Your task to perform on an android device: remove spam from my inbox in the gmail app Image 0: 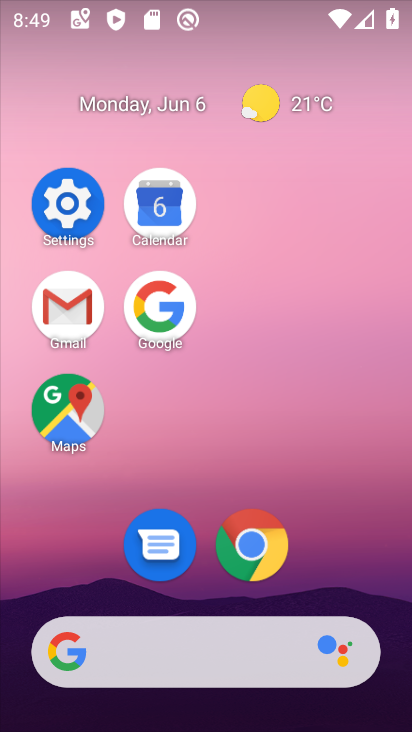
Step 0: click (58, 304)
Your task to perform on an android device: remove spam from my inbox in the gmail app Image 1: 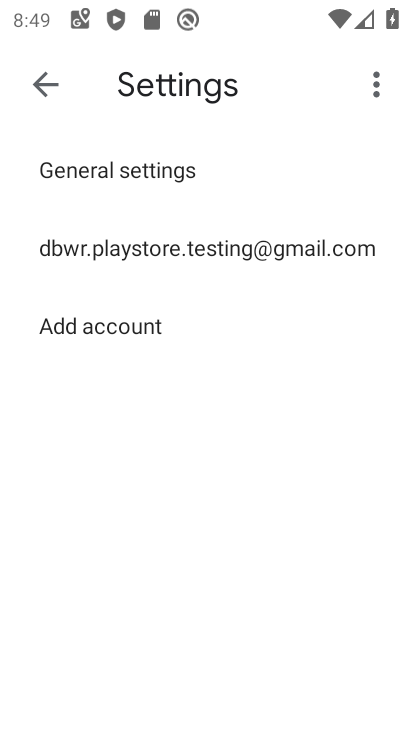
Step 1: click (55, 79)
Your task to perform on an android device: remove spam from my inbox in the gmail app Image 2: 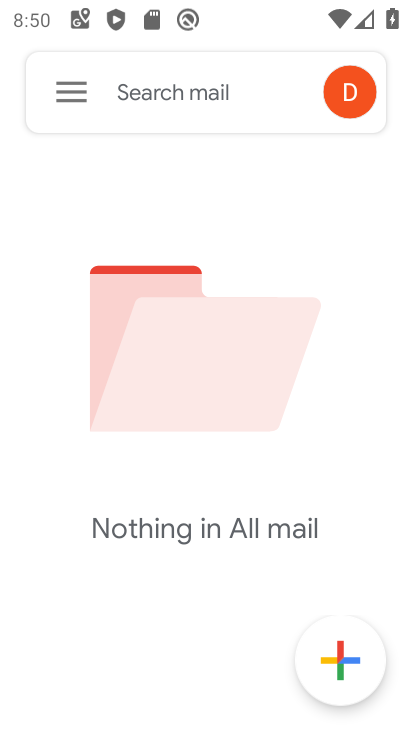
Step 2: click (52, 88)
Your task to perform on an android device: remove spam from my inbox in the gmail app Image 3: 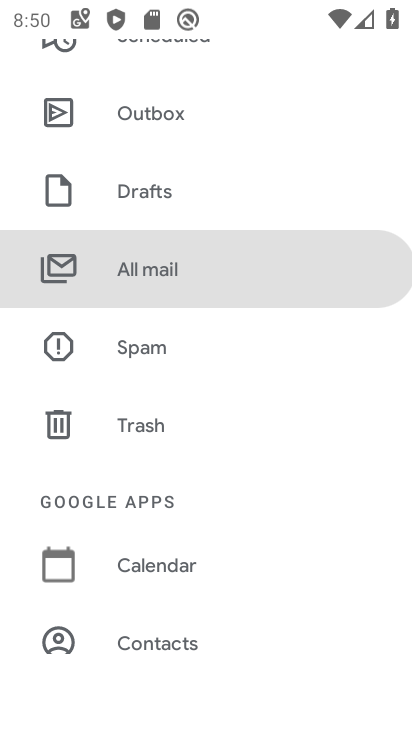
Step 3: click (133, 349)
Your task to perform on an android device: remove spam from my inbox in the gmail app Image 4: 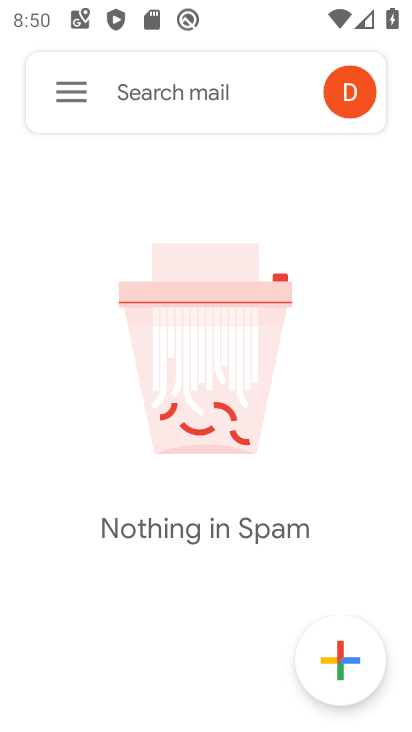
Step 4: task complete